Your task to perform on an android device: Is it going to rain this weekend? Image 0: 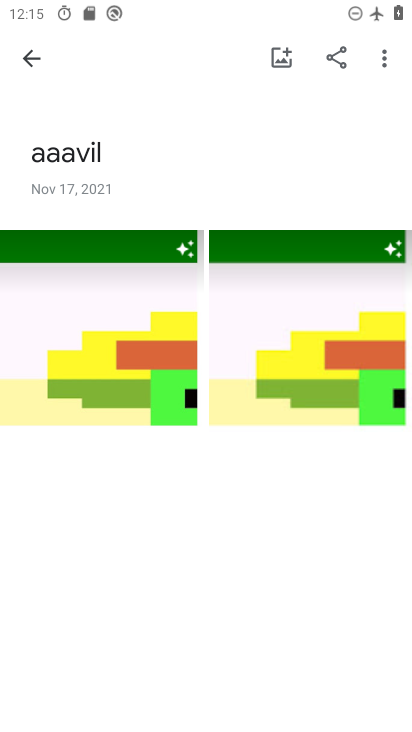
Step 0: press home button
Your task to perform on an android device: Is it going to rain this weekend? Image 1: 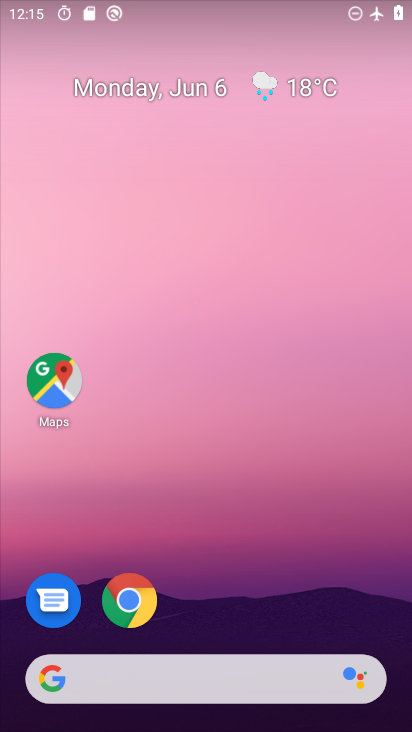
Step 1: drag from (251, 623) to (246, 151)
Your task to perform on an android device: Is it going to rain this weekend? Image 2: 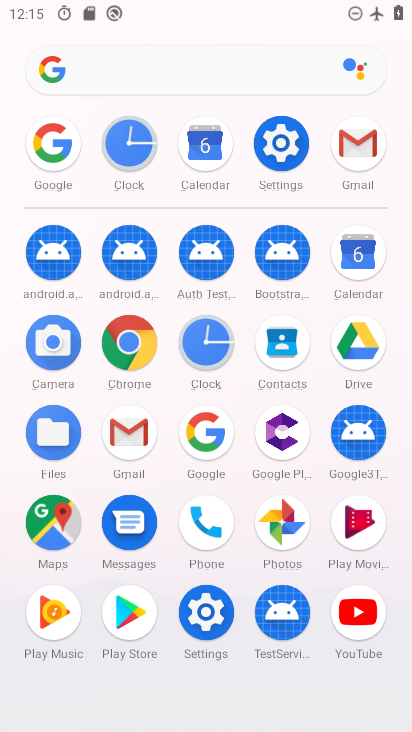
Step 2: click (209, 443)
Your task to perform on an android device: Is it going to rain this weekend? Image 3: 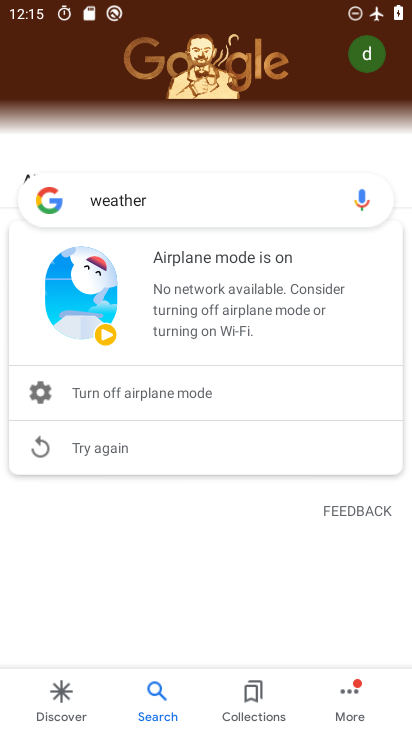
Step 3: task complete